Your task to perform on an android device: choose inbox layout in the gmail app Image 0: 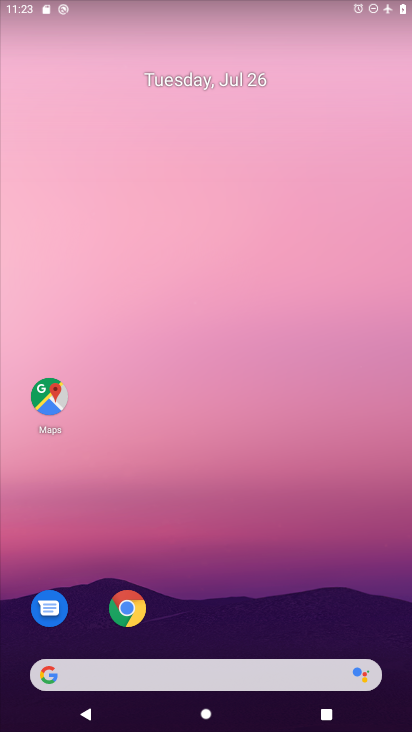
Step 0: drag from (337, 583) to (358, 28)
Your task to perform on an android device: choose inbox layout in the gmail app Image 1: 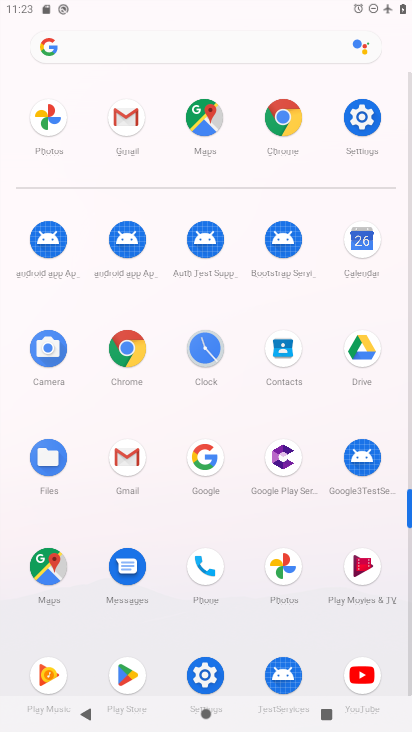
Step 1: click (130, 120)
Your task to perform on an android device: choose inbox layout in the gmail app Image 2: 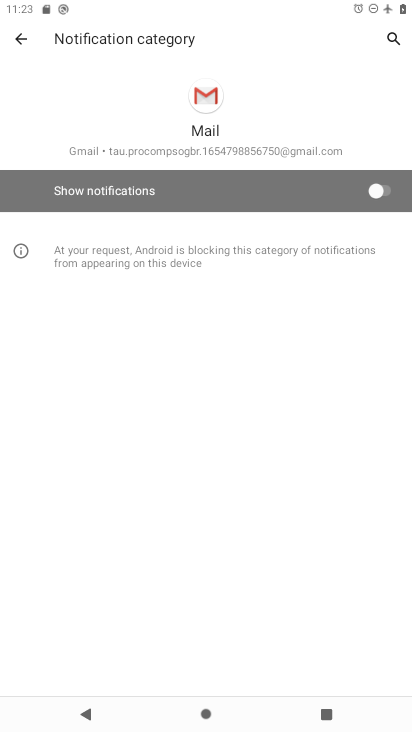
Step 2: click (24, 39)
Your task to perform on an android device: choose inbox layout in the gmail app Image 3: 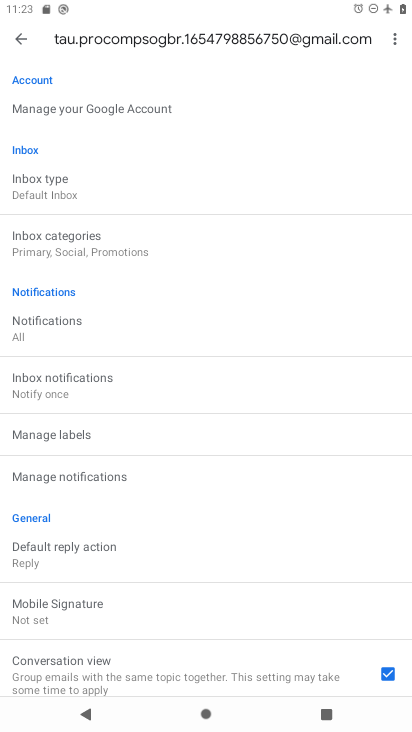
Step 3: click (47, 179)
Your task to perform on an android device: choose inbox layout in the gmail app Image 4: 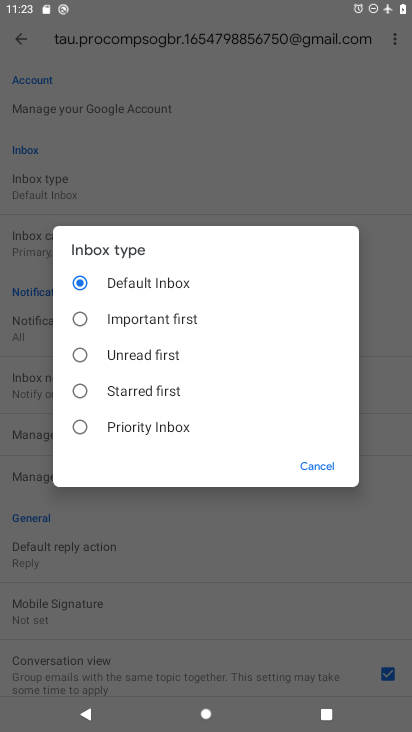
Step 4: task complete